Your task to perform on an android device: turn on notifications settings in the gmail app Image 0: 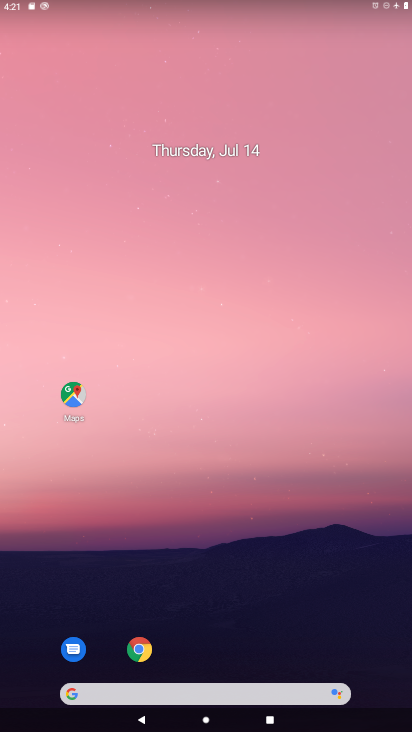
Step 0: drag from (265, 641) to (267, 48)
Your task to perform on an android device: turn on notifications settings in the gmail app Image 1: 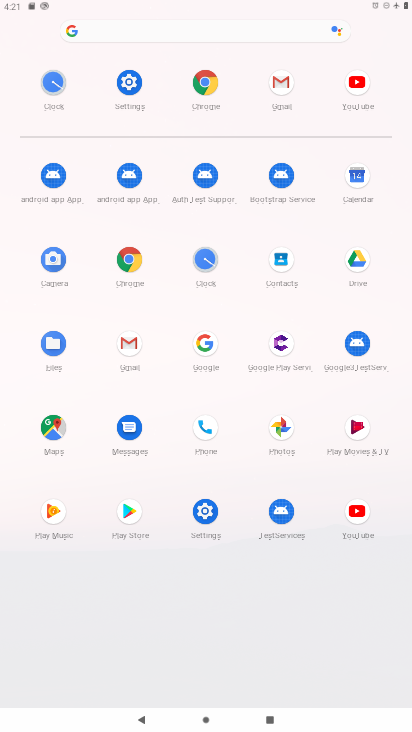
Step 1: click (133, 355)
Your task to perform on an android device: turn on notifications settings in the gmail app Image 2: 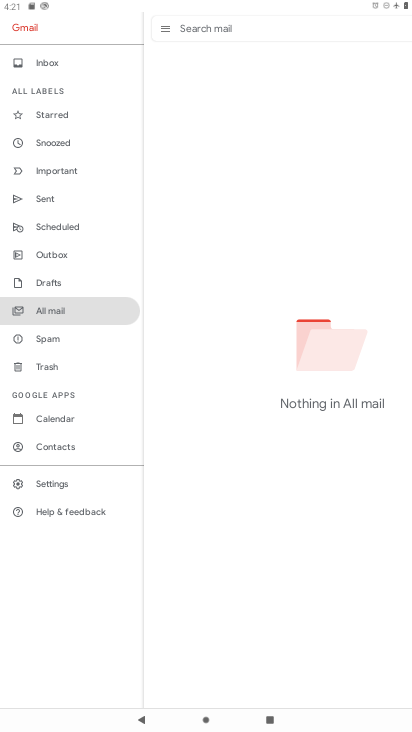
Step 2: click (51, 474)
Your task to perform on an android device: turn on notifications settings in the gmail app Image 3: 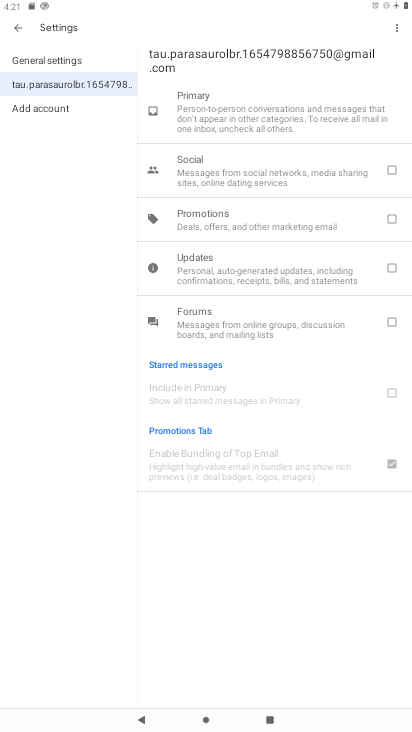
Step 3: click (52, 63)
Your task to perform on an android device: turn on notifications settings in the gmail app Image 4: 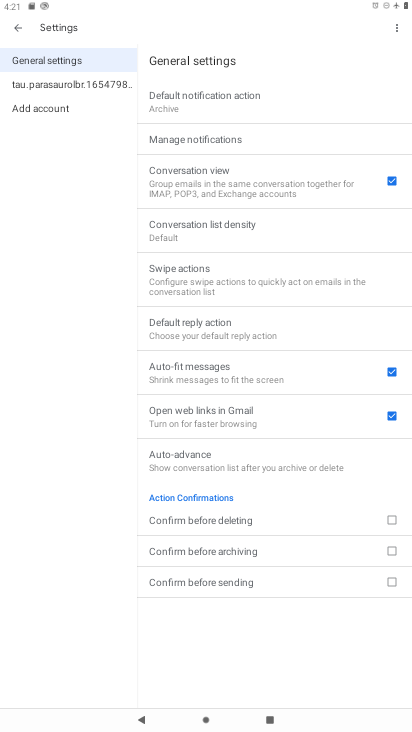
Step 4: click (244, 144)
Your task to perform on an android device: turn on notifications settings in the gmail app Image 5: 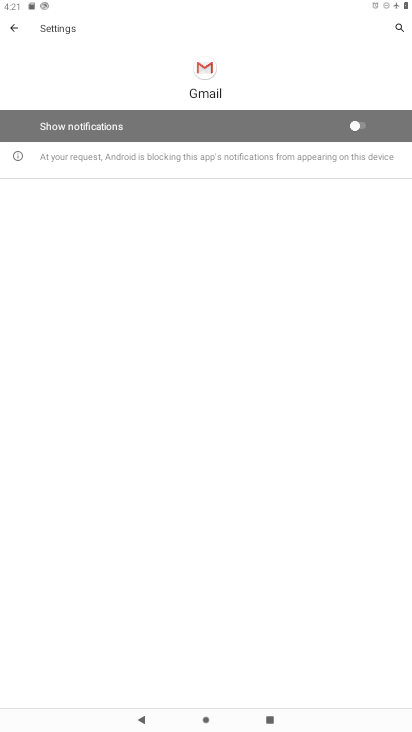
Step 5: click (357, 130)
Your task to perform on an android device: turn on notifications settings in the gmail app Image 6: 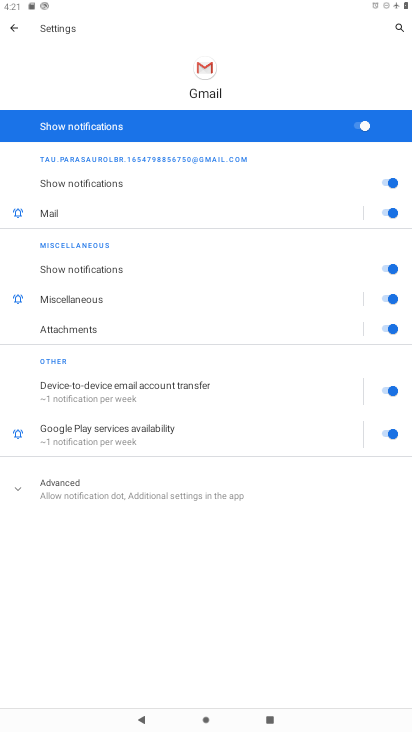
Step 6: task complete